Your task to perform on an android device: change keyboard looks Image 0: 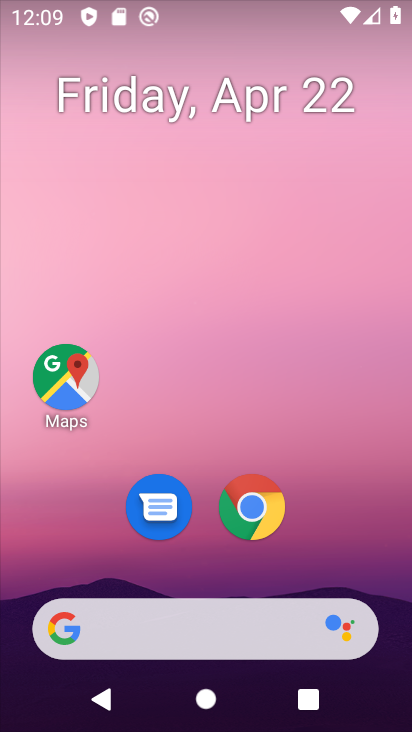
Step 0: press home button
Your task to perform on an android device: change keyboard looks Image 1: 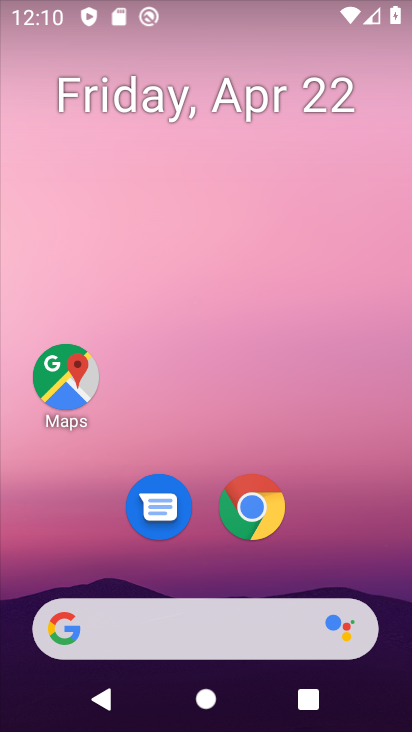
Step 1: drag from (341, 488) to (283, 115)
Your task to perform on an android device: change keyboard looks Image 2: 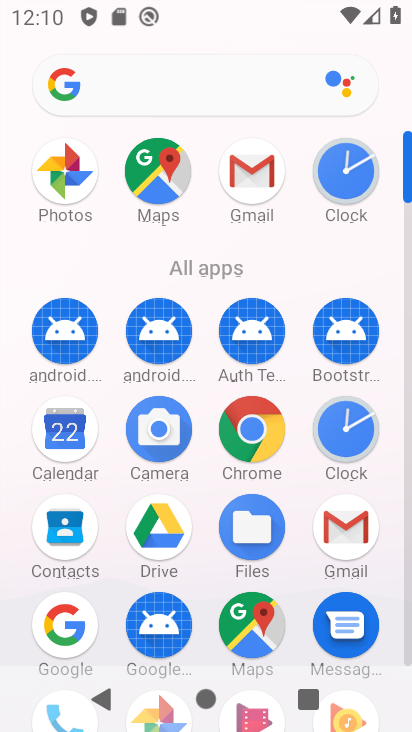
Step 2: drag from (203, 620) to (208, 242)
Your task to perform on an android device: change keyboard looks Image 3: 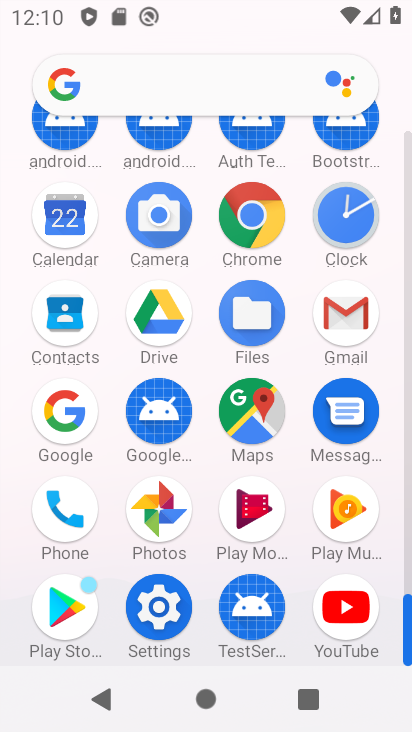
Step 3: click (153, 629)
Your task to perform on an android device: change keyboard looks Image 4: 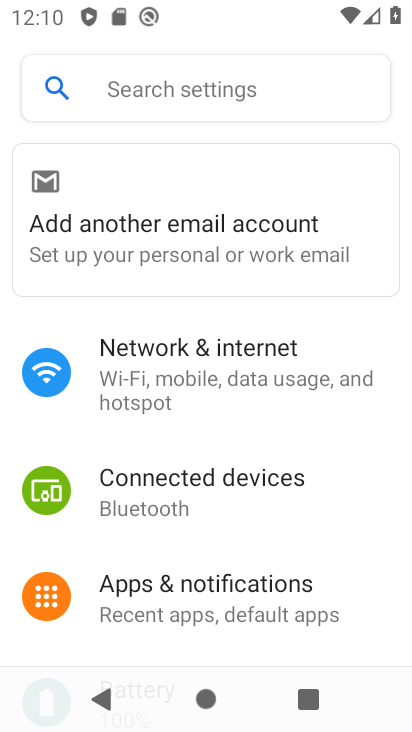
Step 4: drag from (354, 613) to (314, 75)
Your task to perform on an android device: change keyboard looks Image 5: 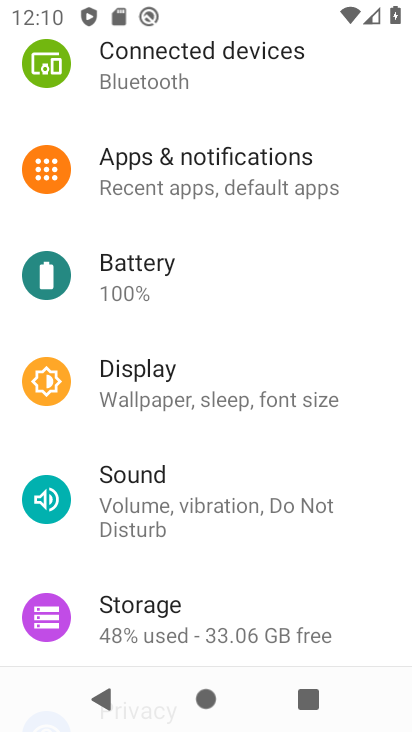
Step 5: drag from (313, 576) to (298, 282)
Your task to perform on an android device: change keyboard looks Image 6: 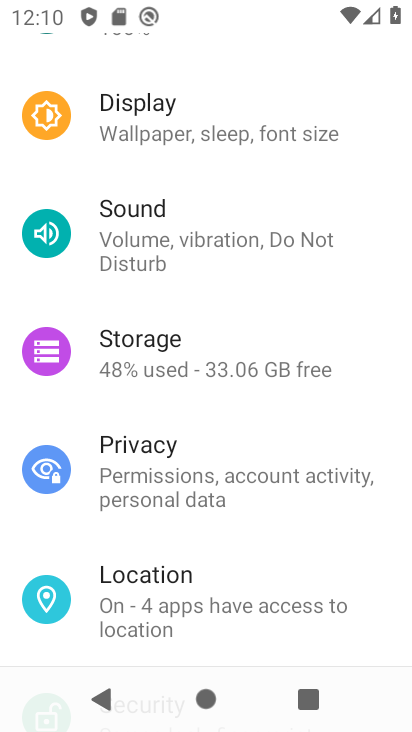
Step 6: drag from (234, 607) to (238, 192)
Your task to perform on an android device: change keyboard looks Image 7: 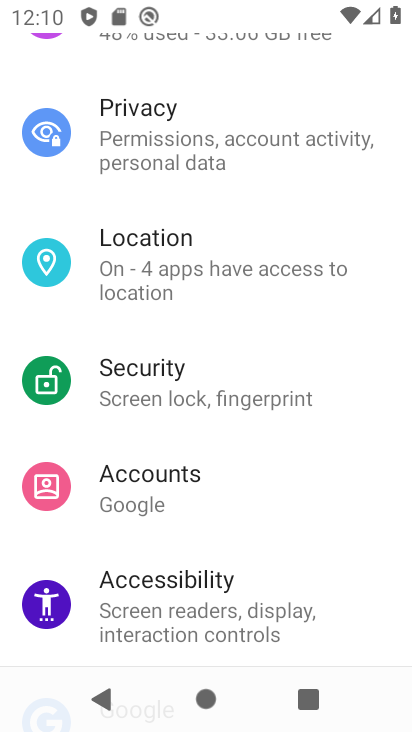
Step 7: drag from (344, 608) to (347, 230)
Your task to perform on an android device: change keyboard looks Image 8: 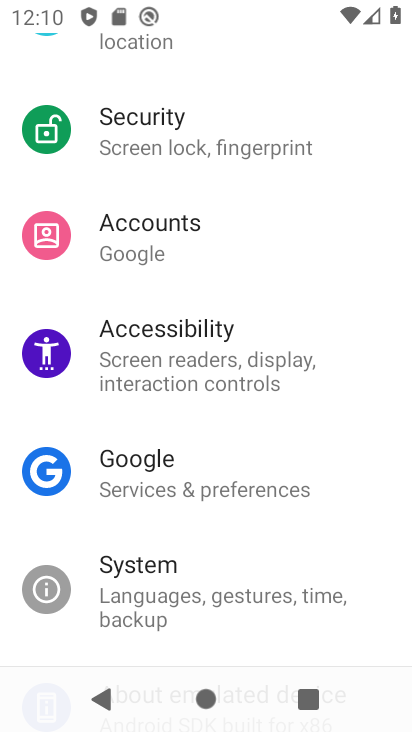
Step 8: click (133, 588)
Your task to perform on an android device: change keyboard looks Image 9: 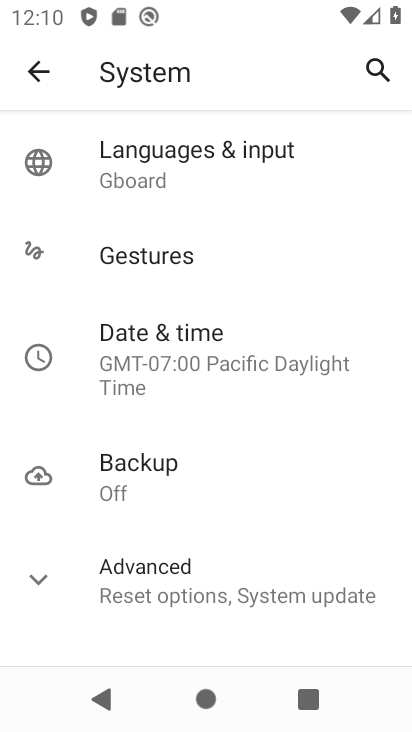
Step 9: click (145, 168)
Your task to perform on an android device: change keyboard looks Image 10: 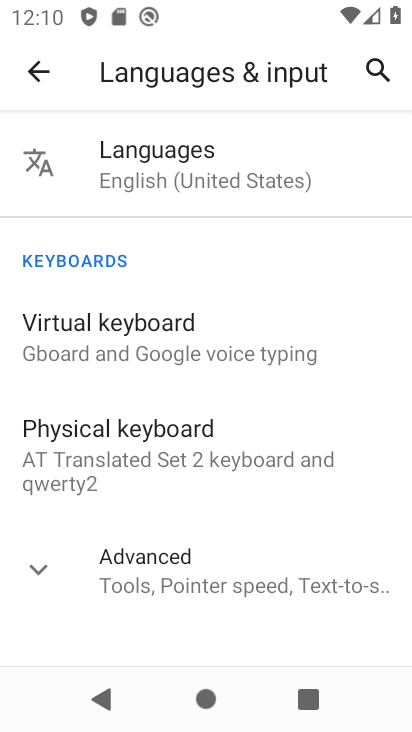
Step 10: click (128, 347)
Your task to perform on an android device: change keyboard looks Image 11: 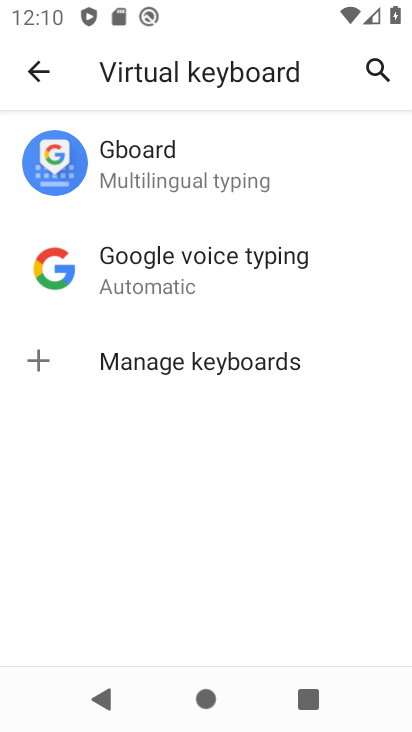
Step 11: click (181, 175)
Your task to perform on an android device: change keyboard looks Image 12: 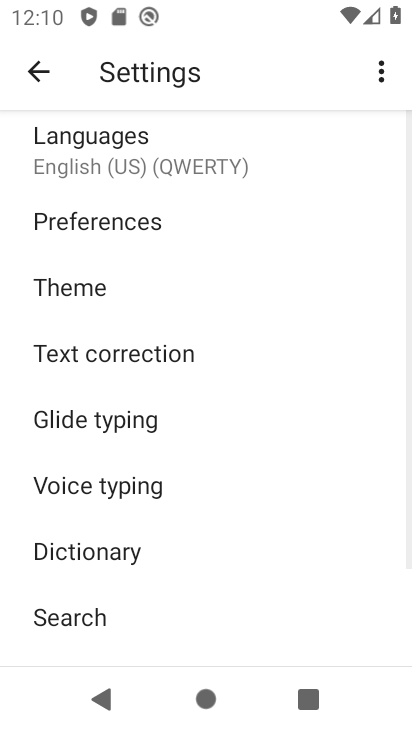
Step 12: click (93, 297)
Your task to perform on an android device: change keyboard looks Image 13: 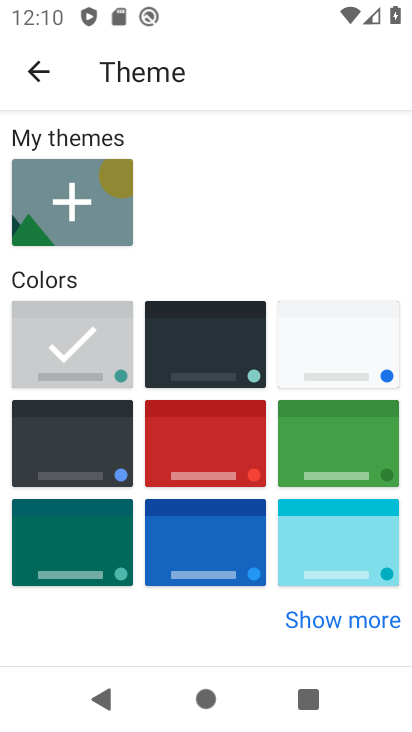
Step 13: drag from (152, 554) to (175, 190)
Your task to perform on an android device: change keyboard looks Image 14: 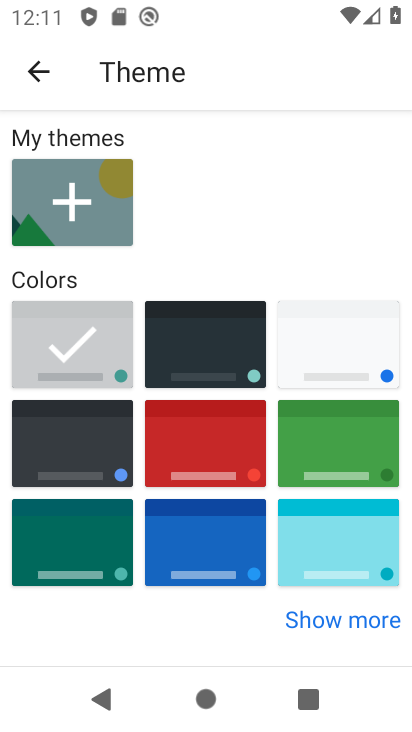
Step 14: click (317, 621)
Your task to perform on an android device: change keyboard looks Image 15: 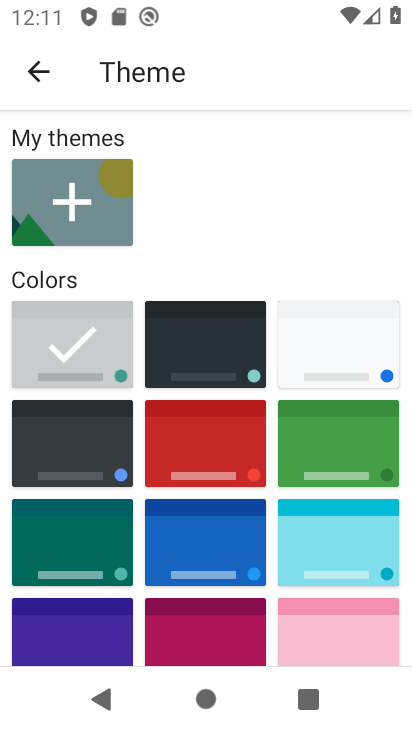
Step 15: drag from (209, 630) to (211, 314)
Your task to perform on an android device: change keyboard looks Image 16: 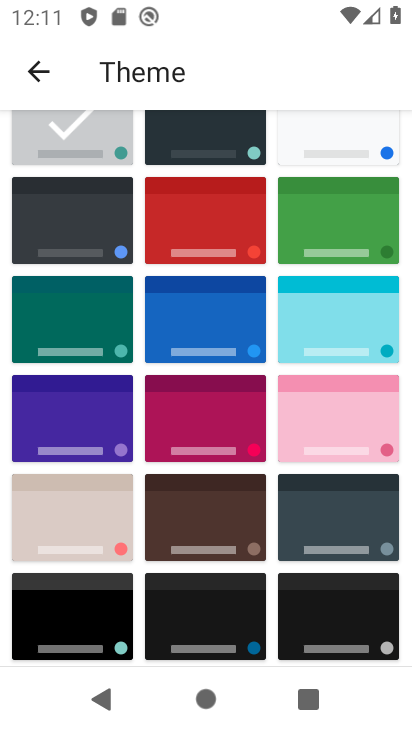
Step 16: click (103, 541)
Your task to perform on an android device: change keyboard looks Image 17: 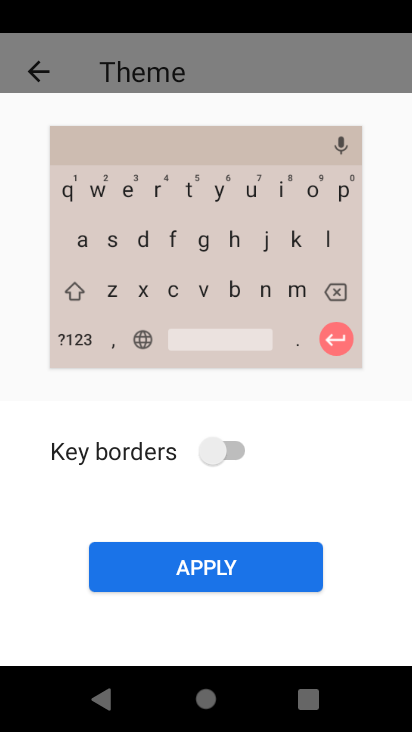
Step 17: click (201, 583)
Your task to perform on an android device: change keyboard looks Image 18: 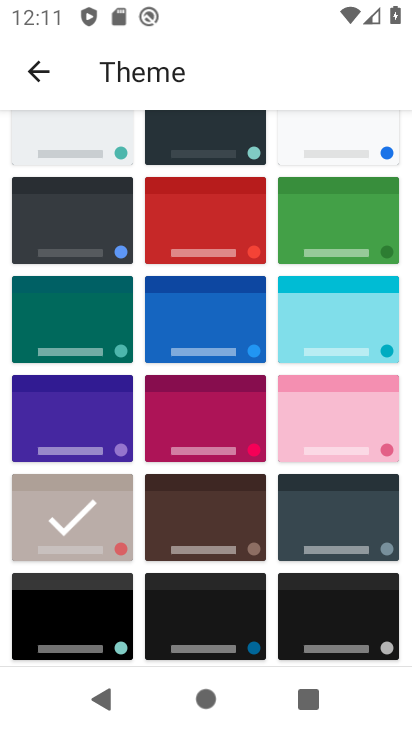
Step 18: task complete